Your task to perform on an android device: turn on improve location accuracy Image 0: 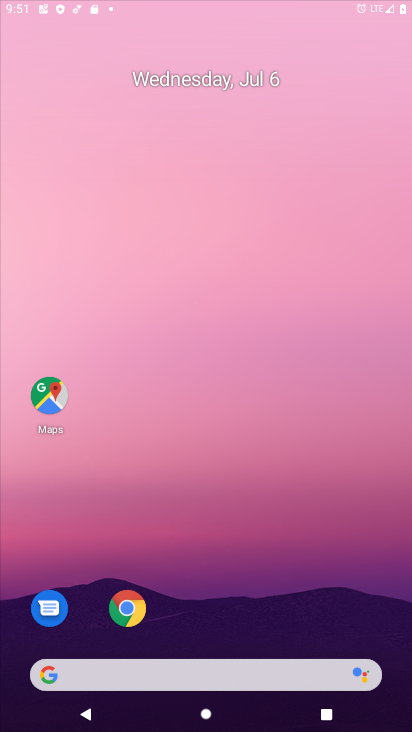
Step 0: drag from (226, 96) to (186, 5)
Your task to perform on an android device: turn on improve location accuracy Image 1: 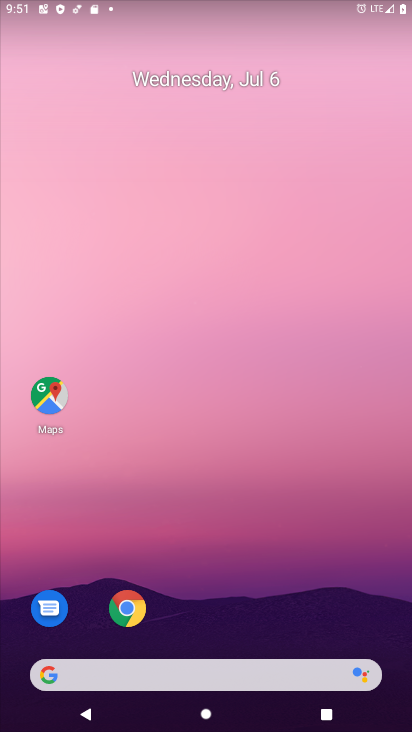
Step 1: drag from (266, 629) to (40, 77)
Your task to perform on an android device: turn on improve location accuracy Image 2: 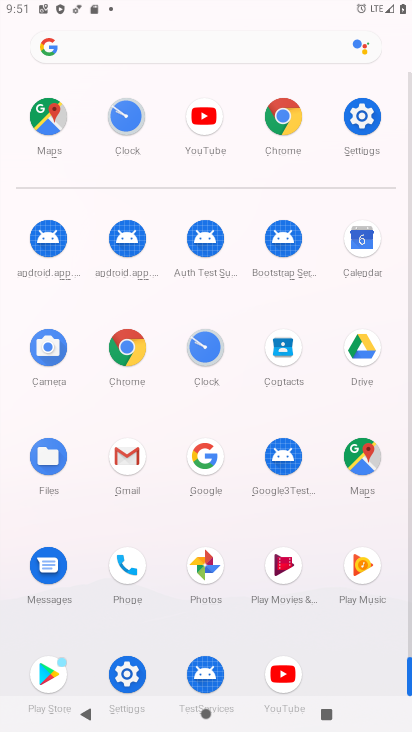
Step 2: click (355, 127)
Your task to perform on an android device: turn on improve location accuracy Image 3: 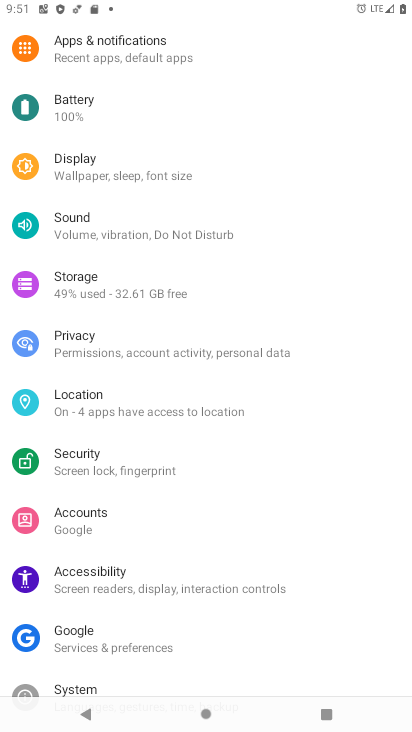
Step 3: click (103, 407)
Your task to perform on an android device: turn on improve location accuracy Image 4: 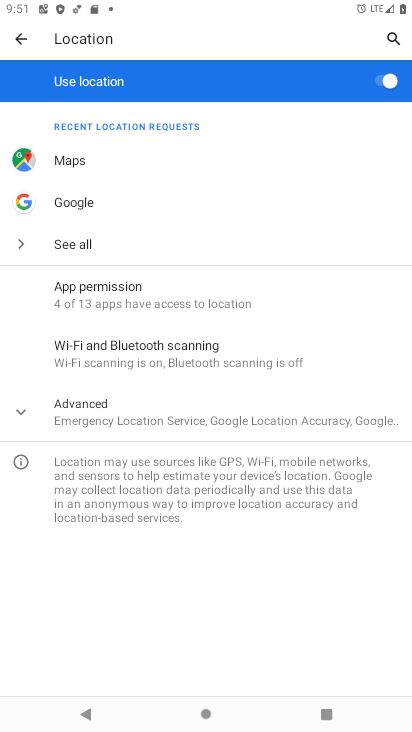
Step 4: click (95, 405)
Your task to perform on an android device: turn on improve location accuracy Image 5: 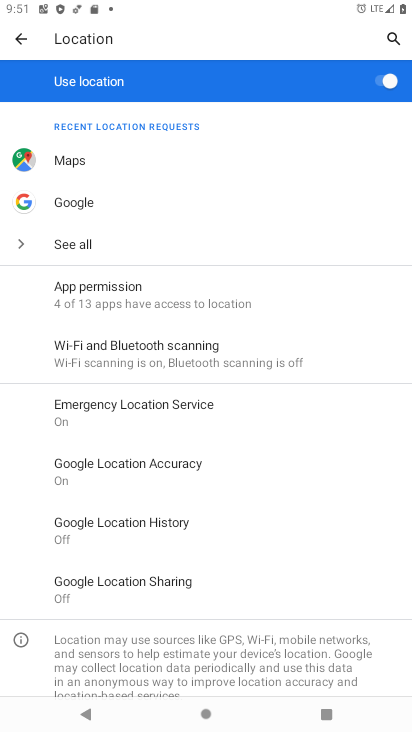
Step 5: drag from (136, 400) to (161, 463)
Your task to perform on an android device: turn on improve location accuracy Image 6: 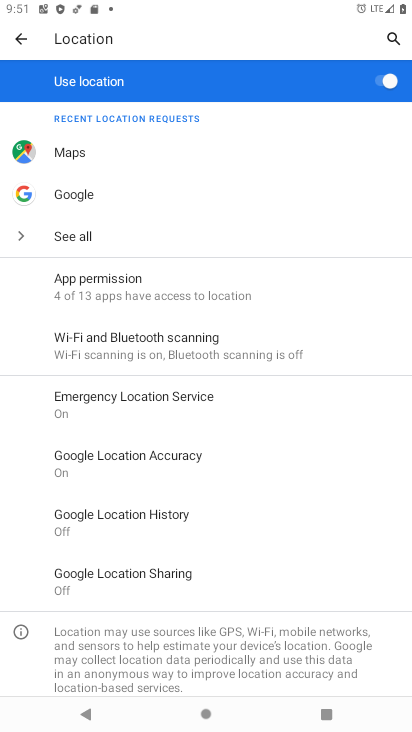
Step 6: click (73, 462)
Your task to perform on an android device: turn on improve location accuracy Image 7: 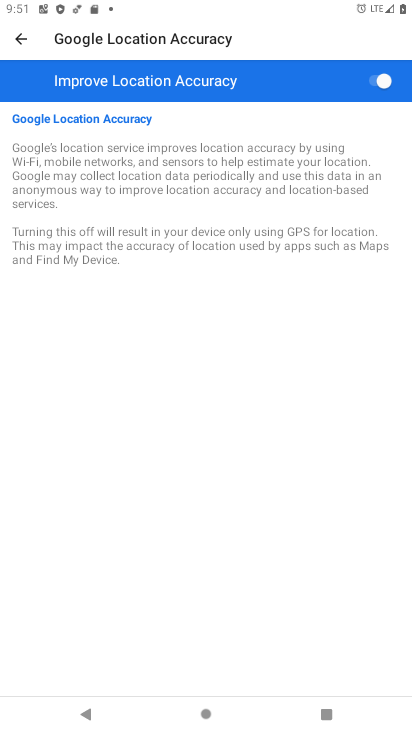
Step 7: task complete